Your task to perform on an android device: Open network settings Image 0: 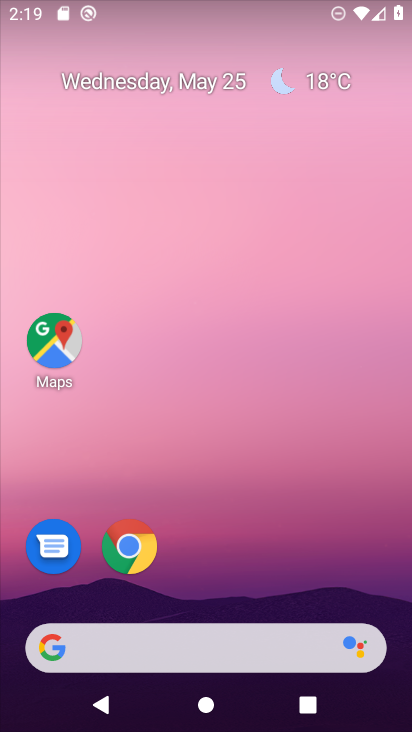
Step 0: drag from (238, 581) to (312, 4)
Your task to perform on an android device: Open network settings Image 1: 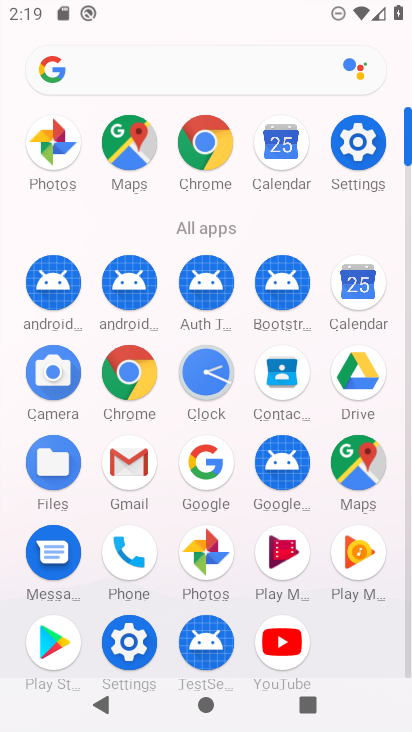
Step 1: click (344, 157)
Your task to perform on an android device: Open network settings Image 2: 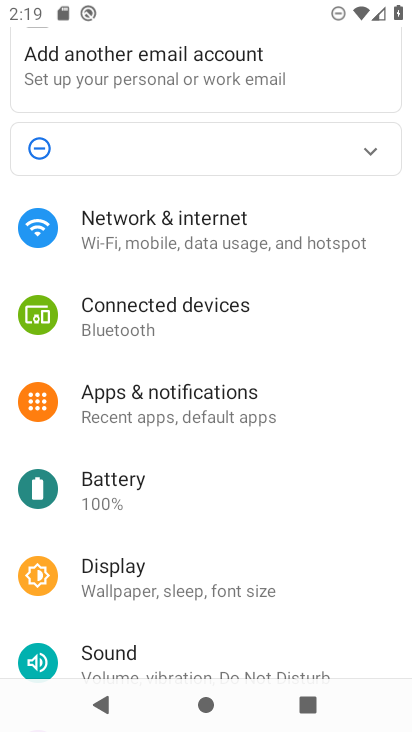
Step 2: click (167, 244)
Your task to perform on an android device: Open network settings Image 3: 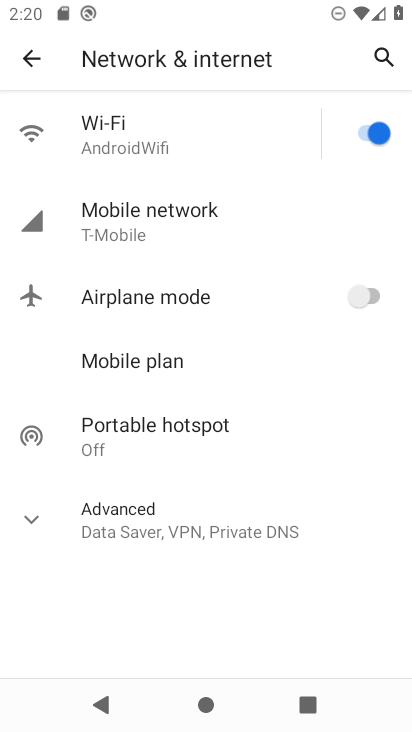
Step 3: task complete